Your task to perform on an android device: Open calendar and show me the first week of next month Image 0: 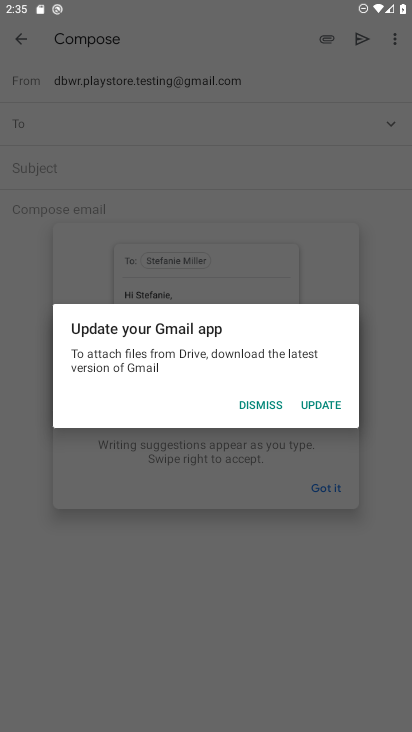
Step 0: press home button
Your task to perform on an android device: Open calendar and show me the first week of next month Image 1: 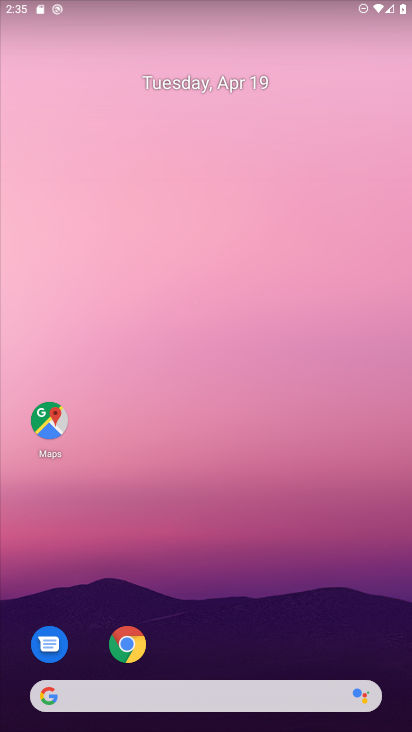
Step 1: drag from (249, 576) to (166, 248)
Your task to perform on an android device: Open calendar and show me the first week of next month Image 2: 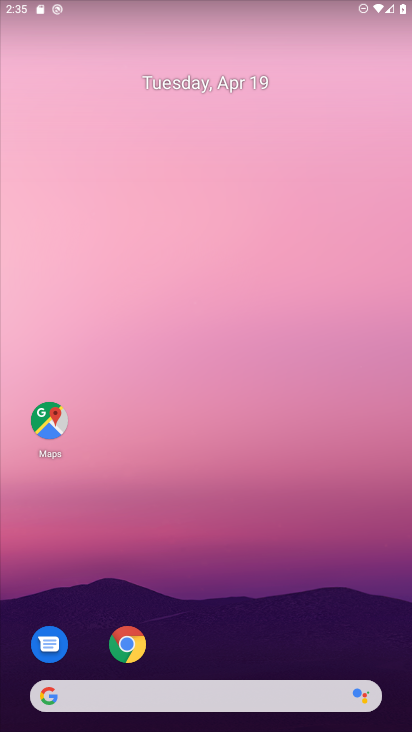
Step 2: drag from (173, 569) to (115, 193)
Your task to perform on an android device: Open calendar and show me the first week of next month Image 3: 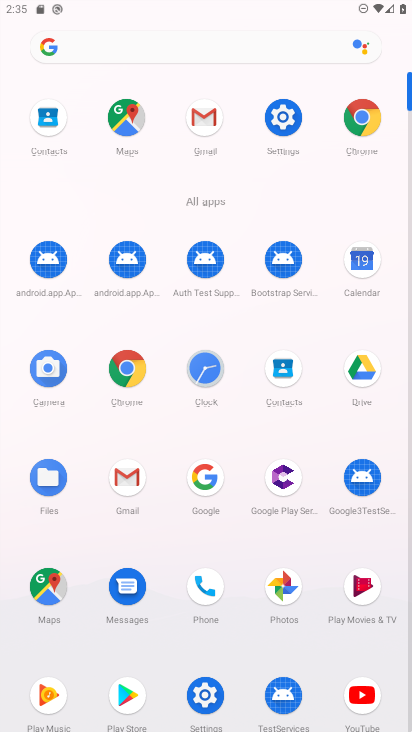
Step 3: click (357, 259)
Your task to perform on an android device: Open calendar and show me the first week of next month Image 4: 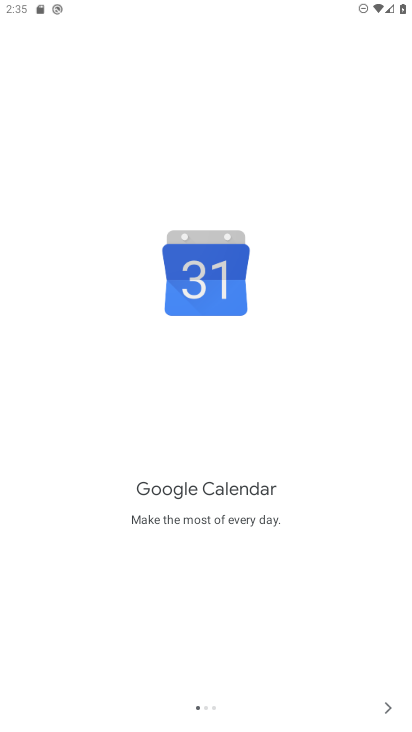
Step 4: click (379, 709)
Your task to perform on an android device: Open calendar and show me the first week of next month Image 5: 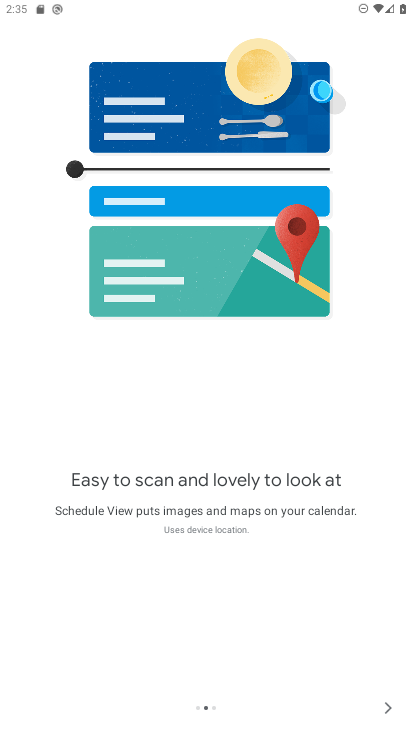
Step 5: click (379, 709)
Your task to perform on an android device: Open calendar and show me the first week of next month Image 6: 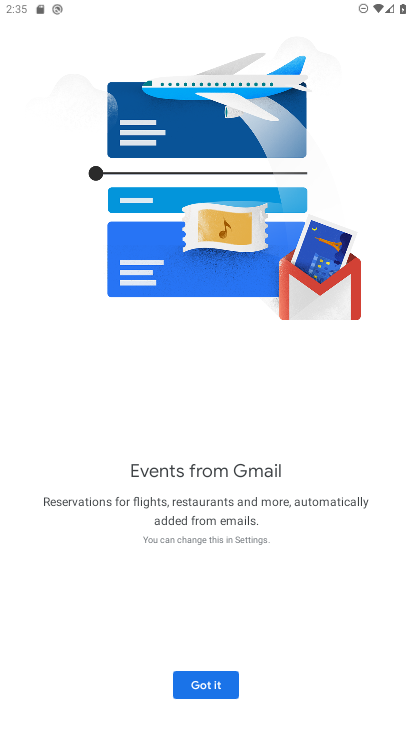
Step 6: click (190, 692)
Your task to perform on an android device: Open calendar and show me the first week of next month Image 7: 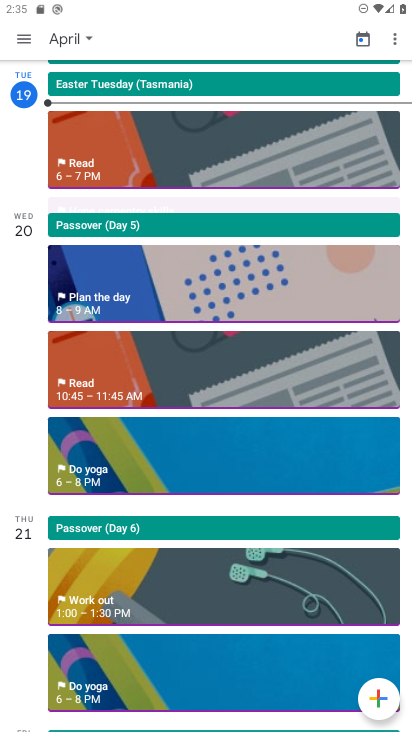
Step 7: click (84, 37)
Your task to perform on an android device: Open calendar and show me the first week of next month Image 8: 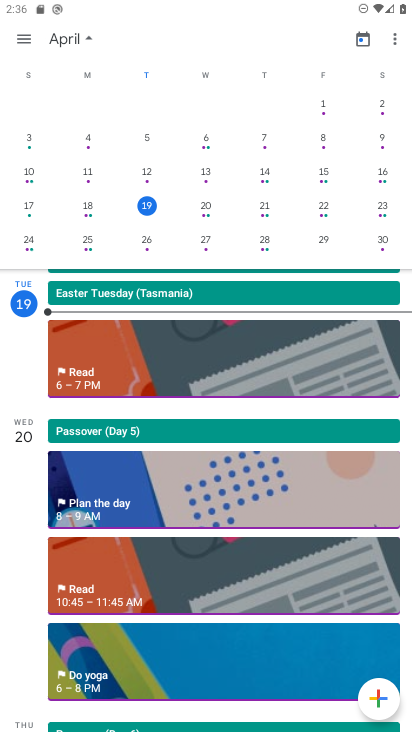
Step 8: drag from (274, 176) to (15, 166)
Your task to perform on an android device: Open calendar and show me the first week of next month Image 9: 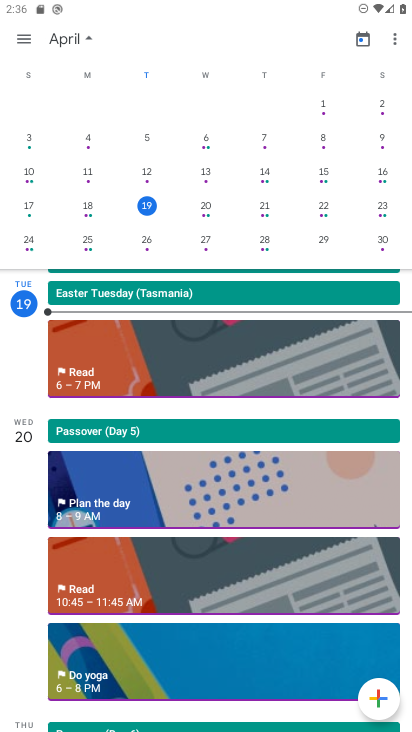
Step 9: drag from (358, 180) to (55, 338)
Your task to perform on an android device: Open calendar and show me the first week of next month Image 10: 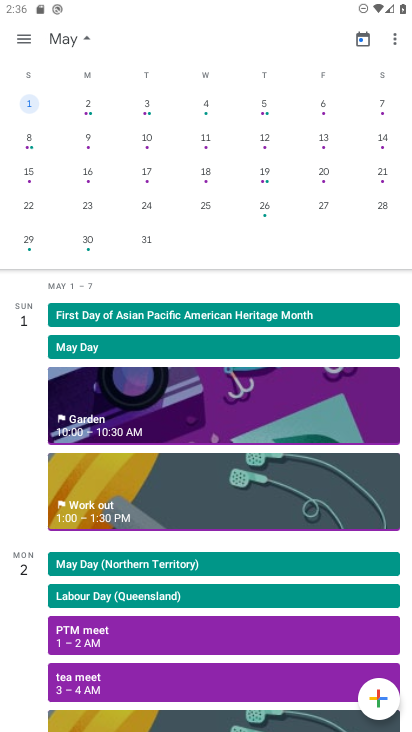
Step 10: click (20, 34)
Your task to perform on an android device: Open calendar and show me the first week of next month Image 11: 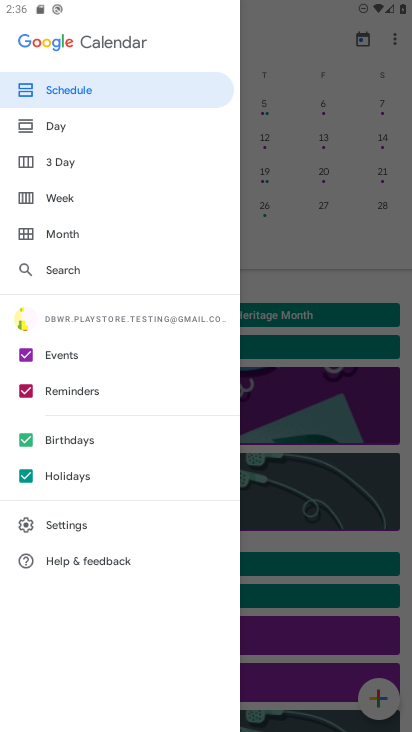
Step 11: click (57, 196)
Your task to perform on an android device: Open calendar and show me the first week of next month Image 12: 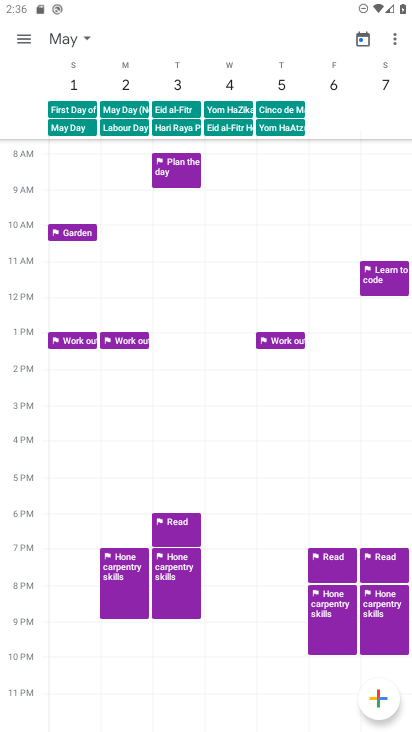
Step 12: task complete